Your task to perform on an android device: Open privacy settings Image 0: 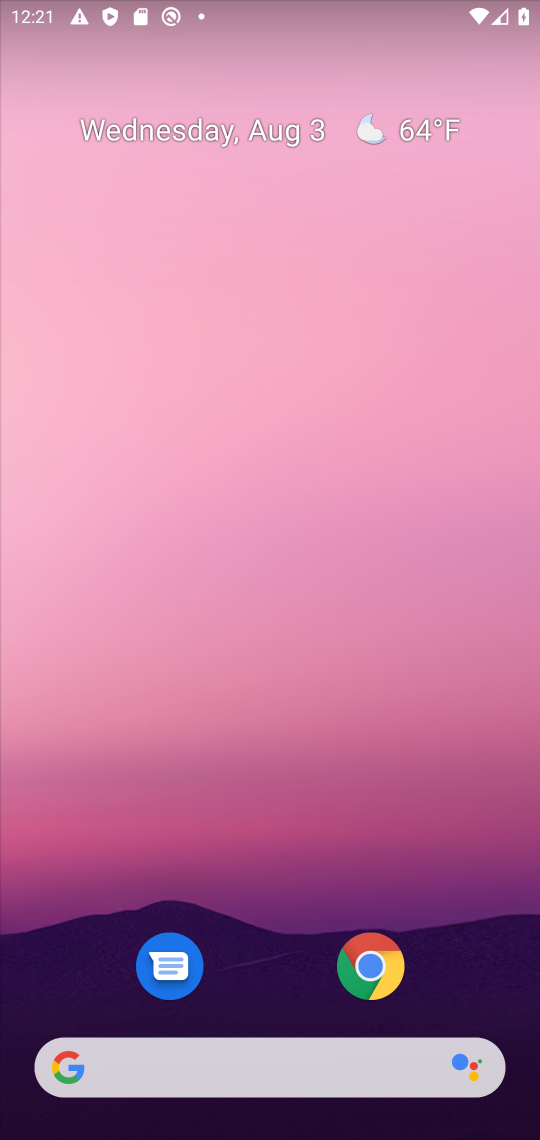
Step 0: drag from (256, 971) to (221, 265)
Your task to perform on an android device: Open privacy settings Image 1: 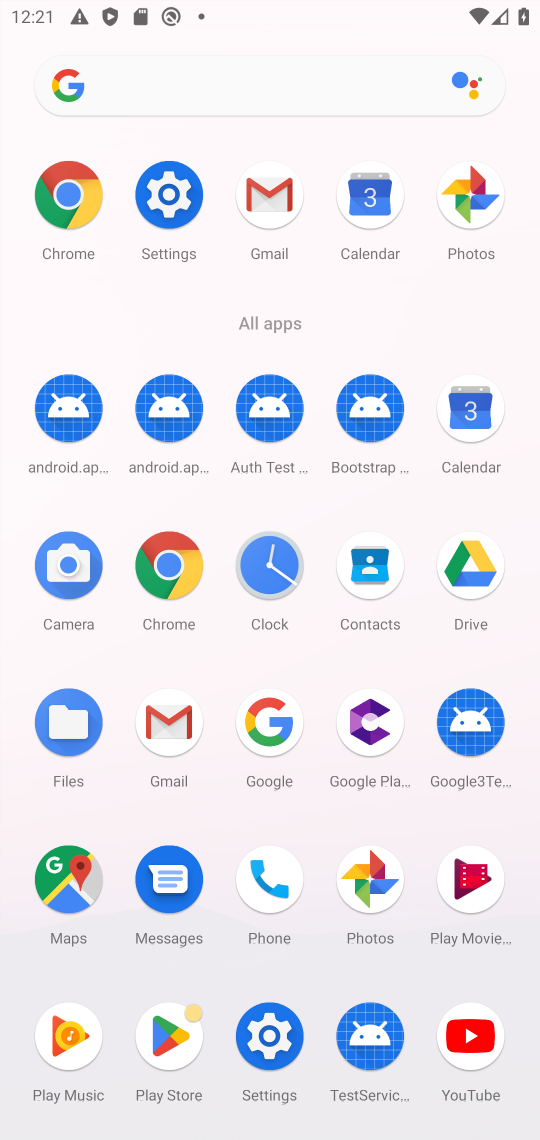
Step 1: click (187, 212)
Your task to perform on an android device: Open privacy settings Image 2: 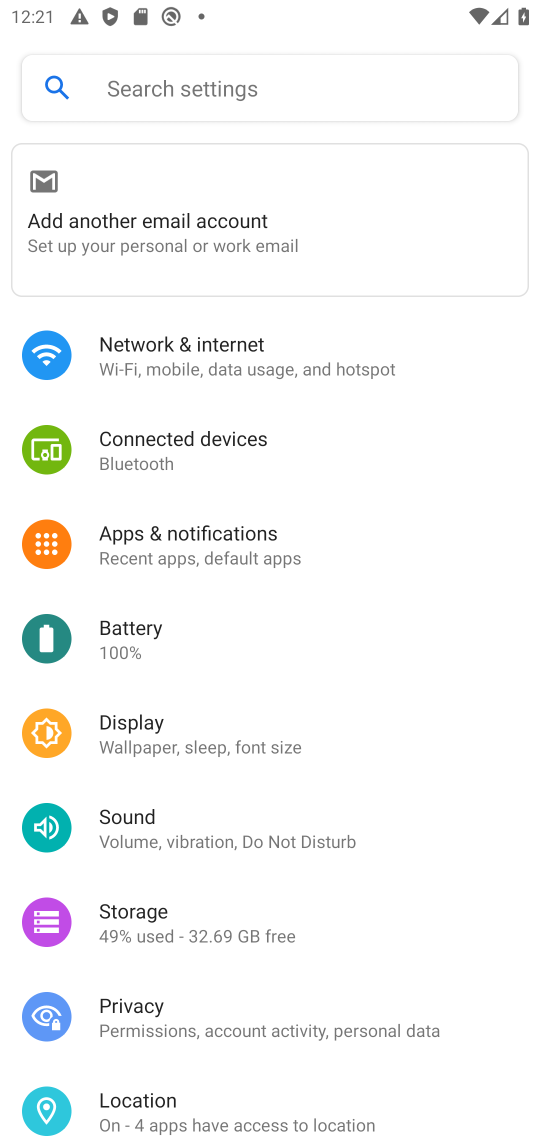
Step 2: drag from (261, 978) to (301, 506)
Your task to perform on an android device: Open privacy settings Image 3: 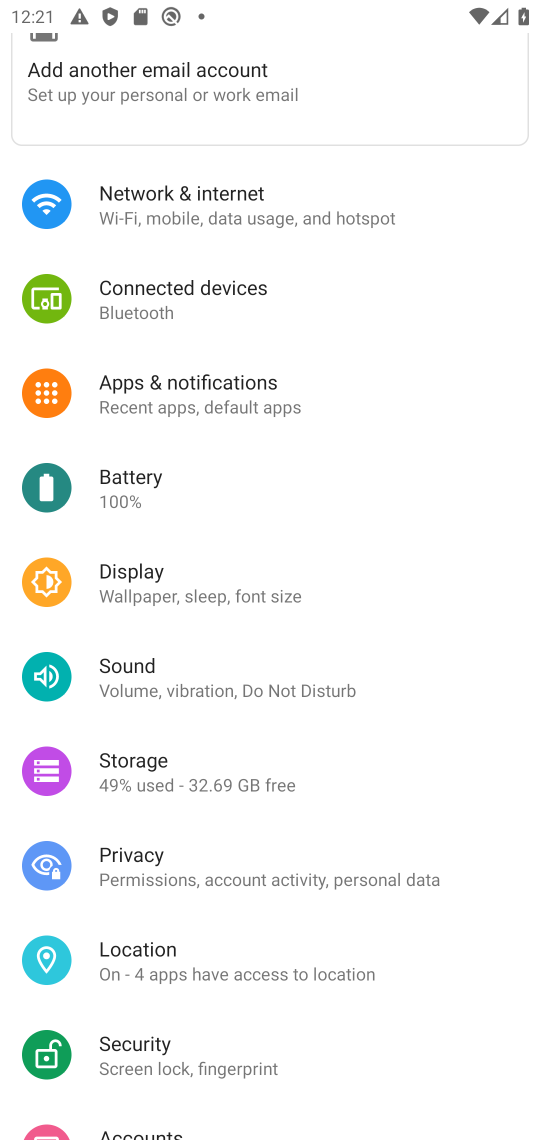
Step 3: click (171, 871)
Your task to perform on an android device: Open privacy settings Image 4: 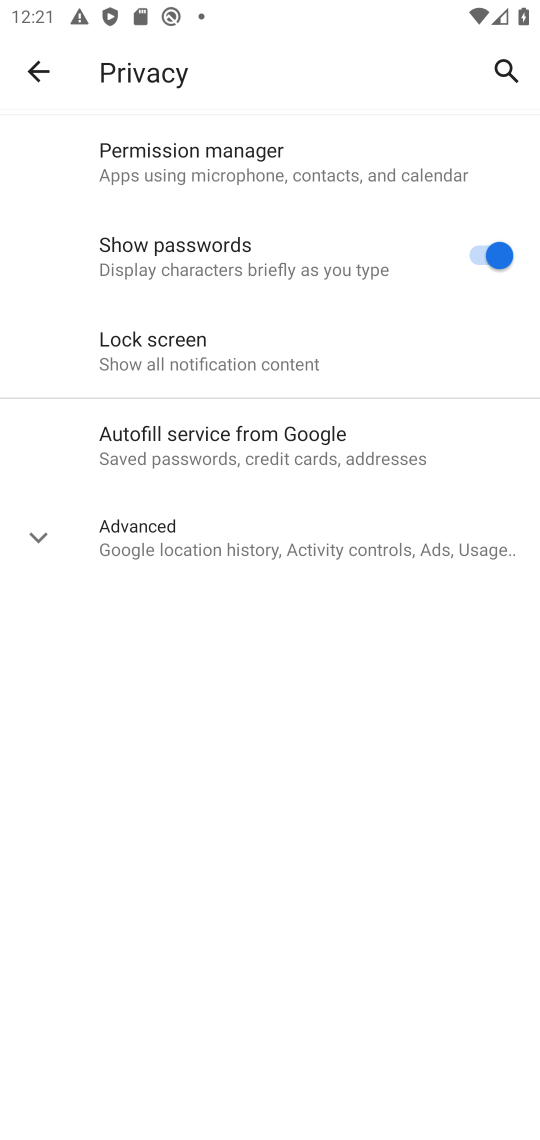
Step 4: task complete